Your task to perform on an android device: move a message to another label in the gmail app Image 0: 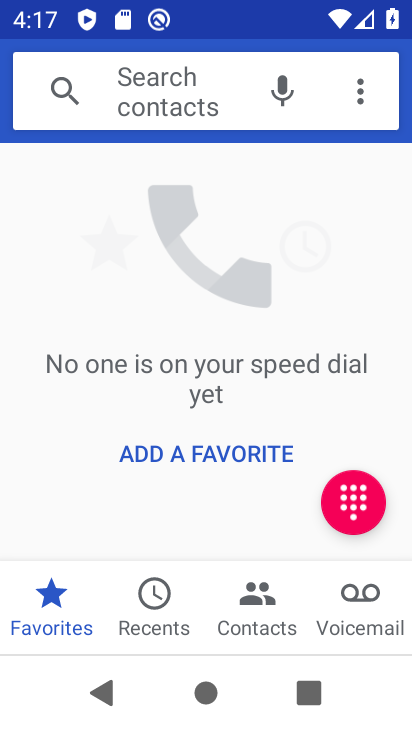
Step 0: press home button
Your task to perform on an android device: move a message to another label in the gmail app Image 1: 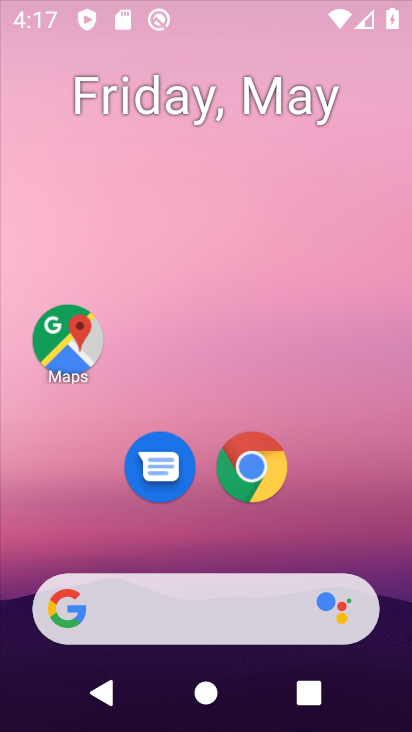
Step 1: drag from (319, 499) to (363, 44)
Your task to perform on an android device: move a message to another label in the gmail app Image 2: 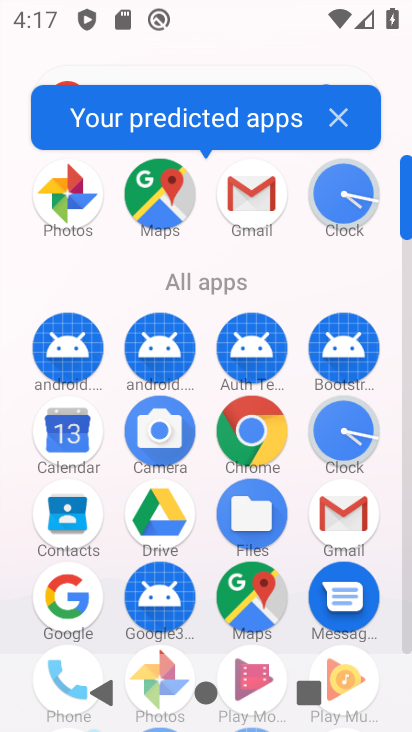
Step 2: click (238, 200)
Your task to perform on an android device: move a message to another label in the gmail app Image 3: 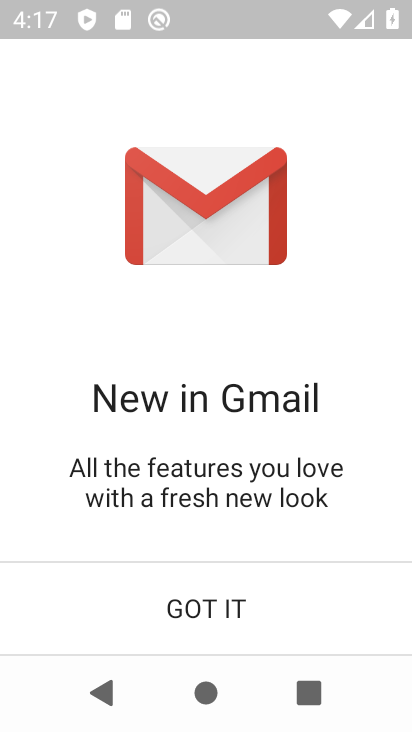
Step 3: click (221, 591)
Your task to perform on an android device: move a message to another label in the gmail app Image 4: 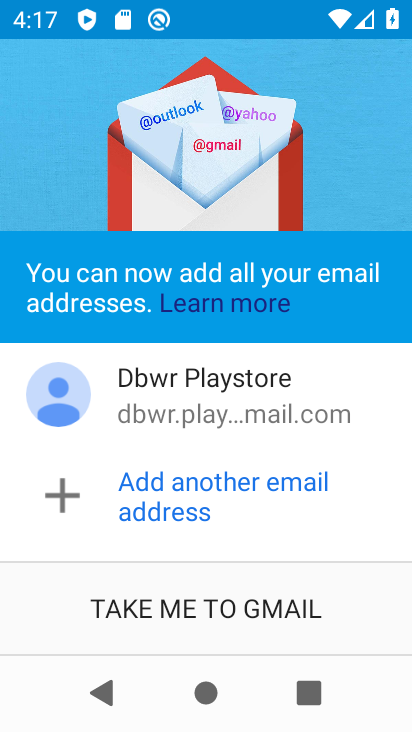
Step 4: click (282, 384)
Your task to perform on an android device: move a message to another label in the gmail app Image 5: 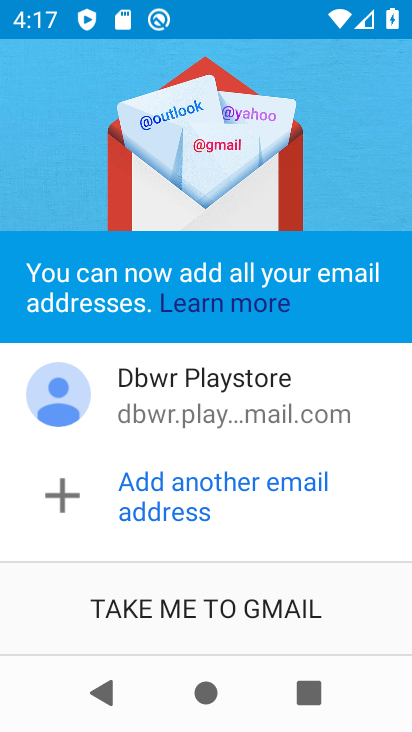
Step 5: click (298, 609)
Your task to perform on an android device: move a message to another label in the gmail app Image 6: 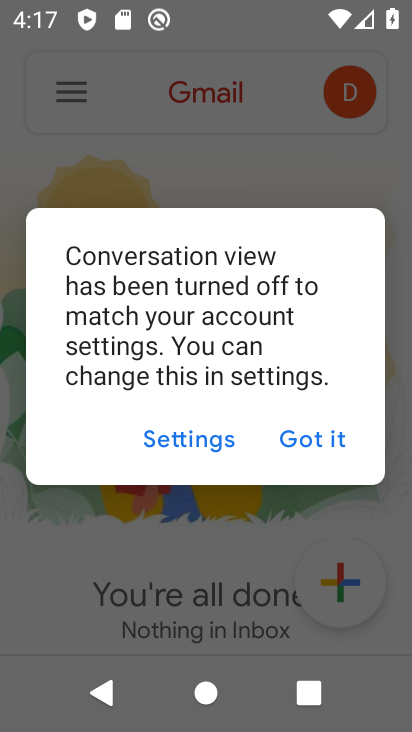
Step 6: click (324, 444)
Your task to perform on an android device: move a message to another label in the gmail app Image 7: 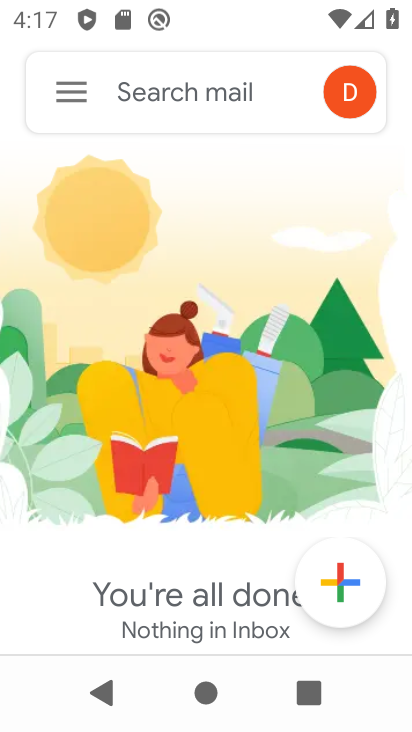
Step 7: click (61, 87)
Your task to perform on an android device: move a message to another label in the gmail app Image 8: 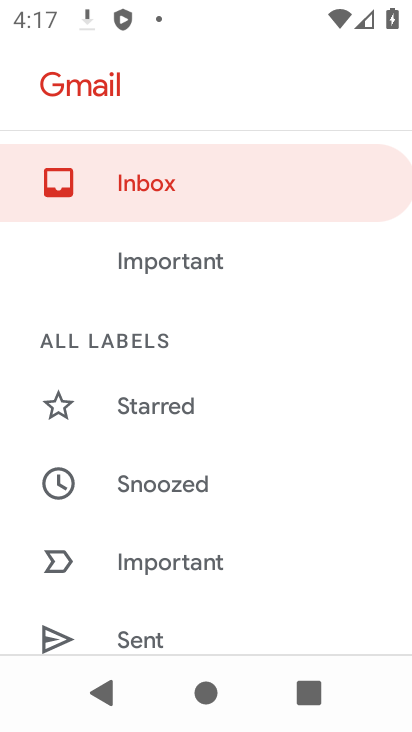
Step 8: drag from (219, 635) to (374, 164)
Your task to perform on an android device: move a message to another label in the gmail app Image 9: 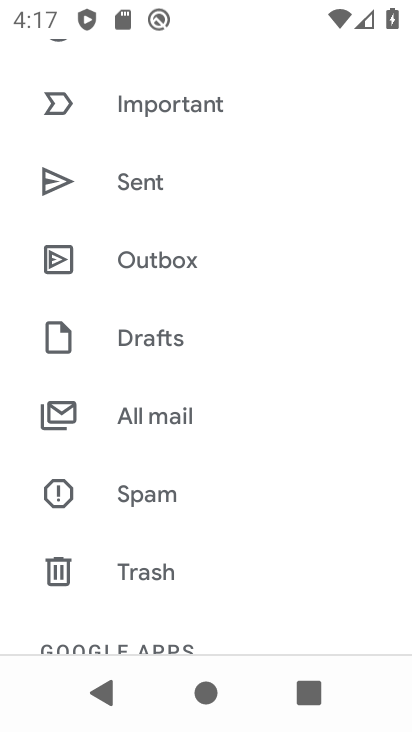
Step 9: click (171, 420)
Your task to perform on an android device: move a message to another label in the gmail app Image 10: 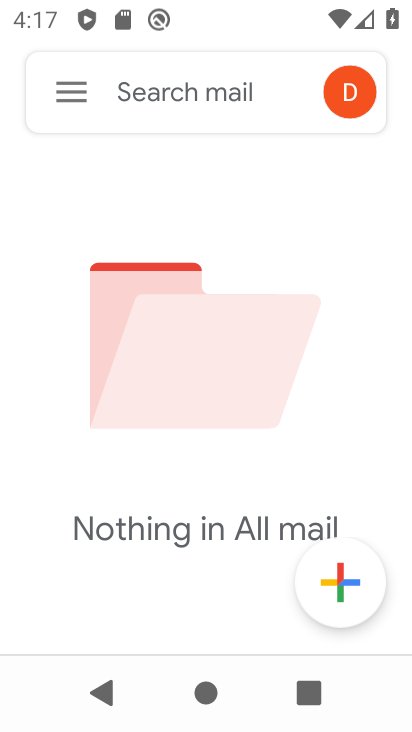
Step 10: task complete